Your task to perform on an android device: toggle priority inbox in the gmail app Image 0: 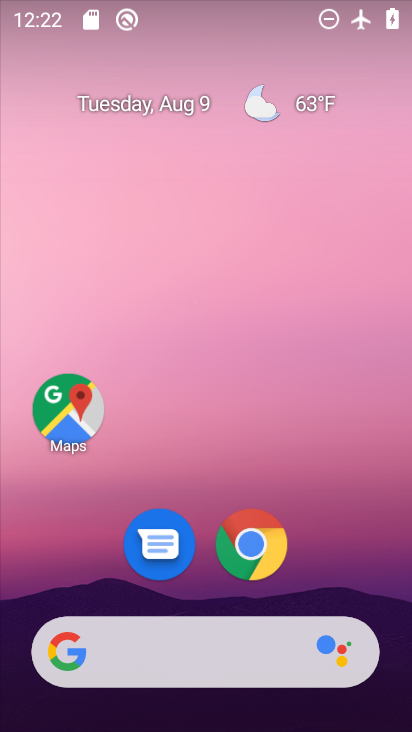
Step 0: drag from (187, 648) to (282, 95)
Your task to perform on an android device: toggle priority inbox in the gmail app Image 1: 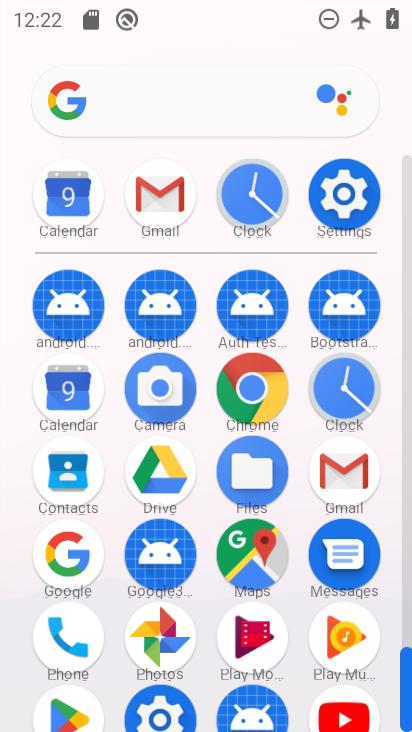
Step 1: click (161, 194)
Your task to perform on an android device: toggle priority inbox in the gmail app Image 2: 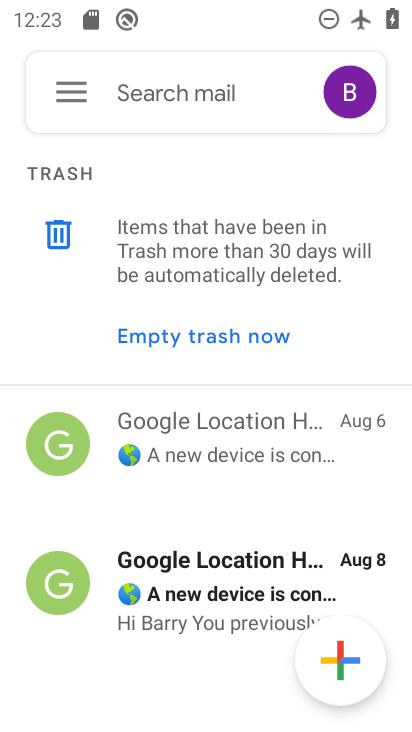
Step 2: click (71, 98)
Your task to perform on an android device: toggle priority inbox in the gmail app Image 3: 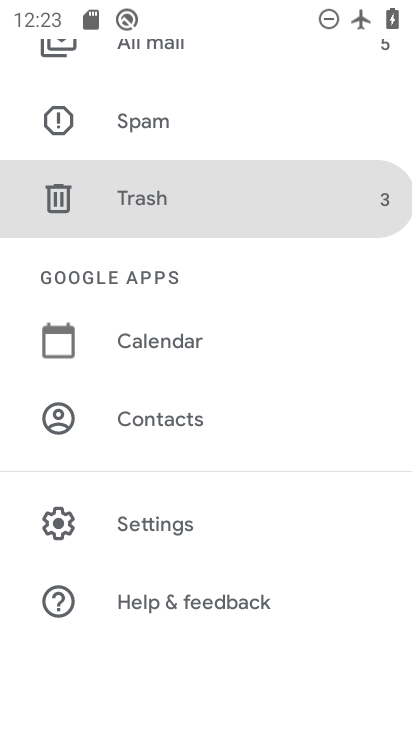
Step 3: click (161, 532)
Your task to perform on an android device: toggle priority inbox in the gmail app Image 4: 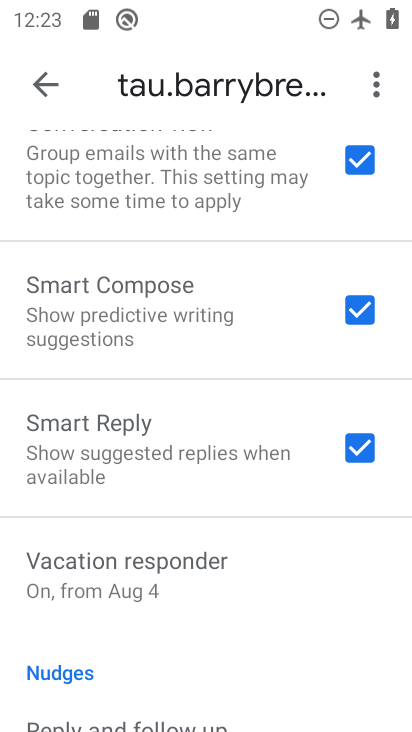
Step 4: drag from (231, 282) to (196, 475)
Your task to perform on an android device: toggle priority inbox in the gmail app Image 5: 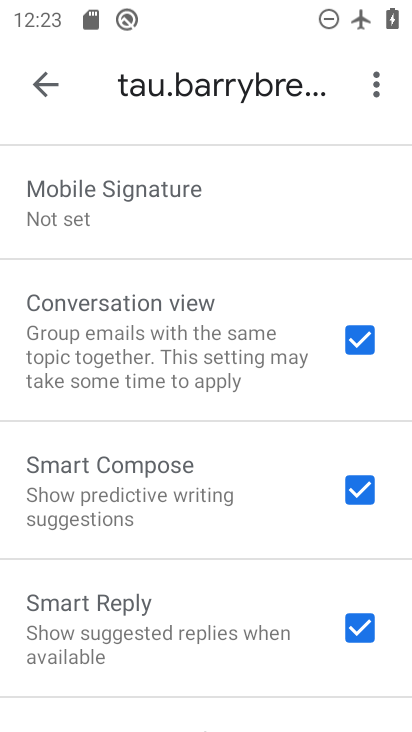
Step 5: drag from (172, 445) to (169, 488)
Your task to perform on an android device: toggle priority inbox in the gmail app Image 6: 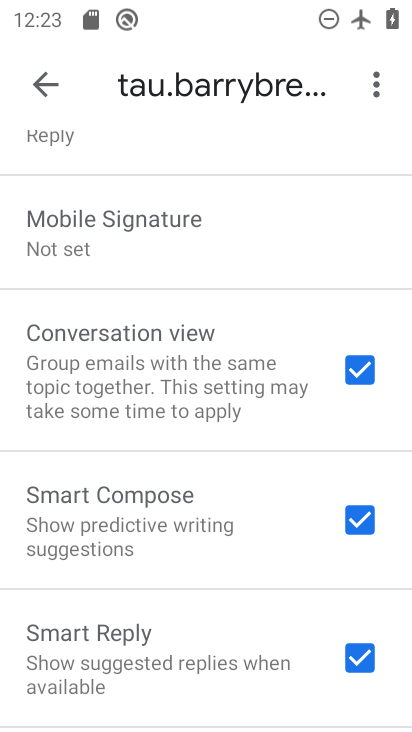
Step 6: drag from (234, 159) to (188, 373)
Your task to perform on an android device: toggle priority inbox in the gmail app Image 7: 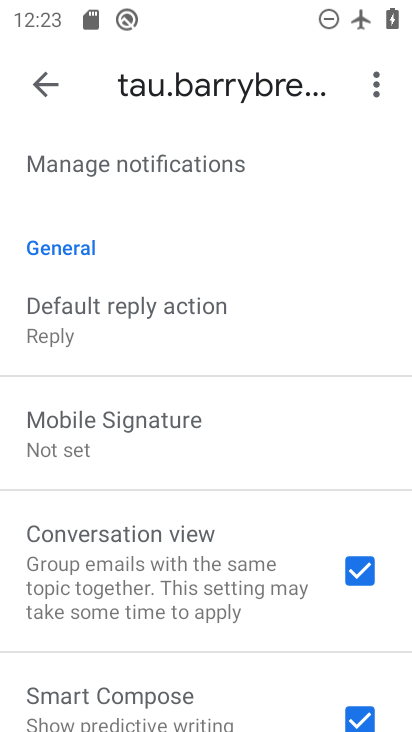
Step 7: drag from (167, 192) to (163, 402)
Your task to perform on an android device: toggle priority inbox in the gmail app Image 8: 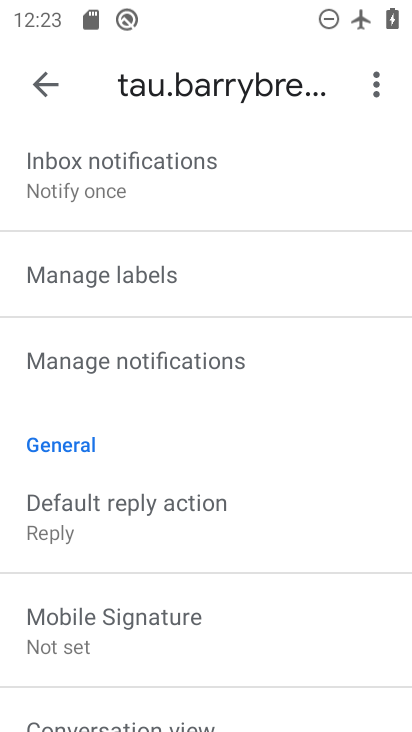
Step 8: drag from (237, 197) to (190, 397)
Your task to perform on an android device: toggle priority inbox in the gmail app Image 9: 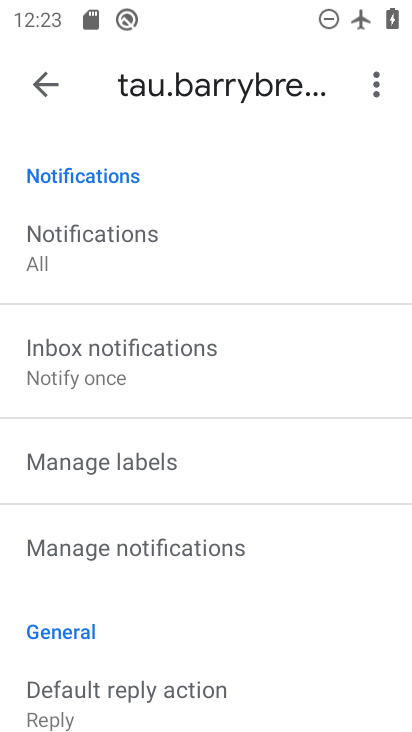
Step 9: drag from (194, 173) to (165, 312)
Your task to perform on an android device: toggle priority inbox in the gmail app Image 10: 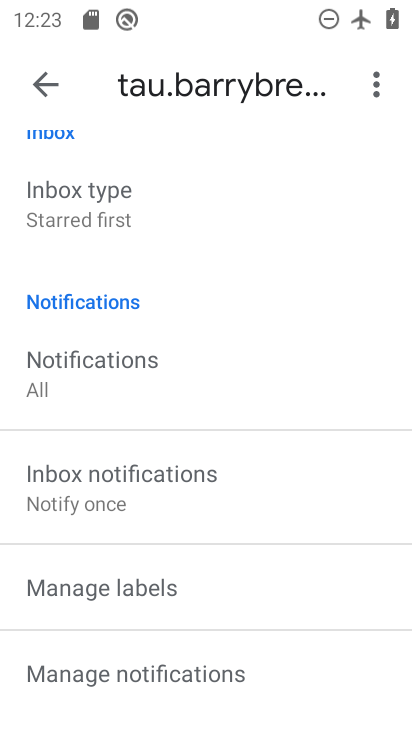
Step 10: drag from (201, 167) to (193, 357)
Your task to perform on an android device: toggle priority inbox in the gmail app Image 11: 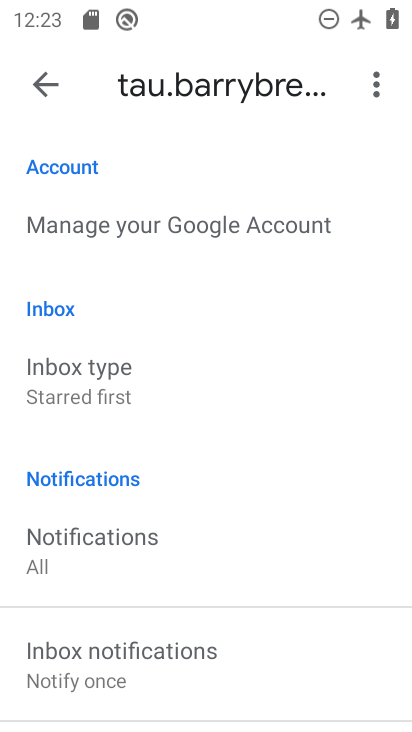
Step 11: click (118, 379)
Your task to perform on an android device: toggle priority inbox in the gmail app Image 12: 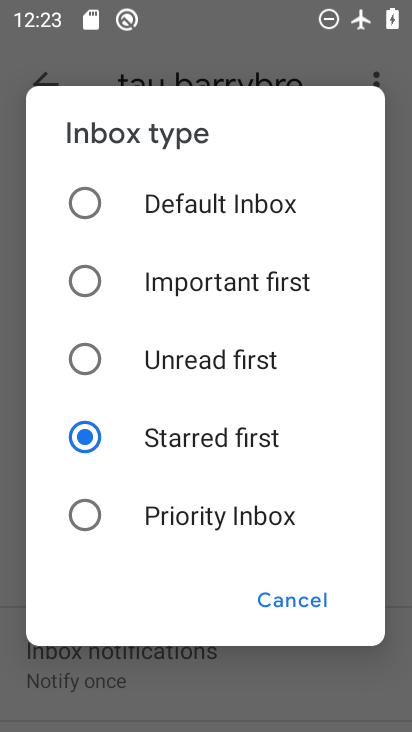
Step 12: click (83, 518)
Your task to perform on an android device: toggle priority inbox in the gmail app Image 13: 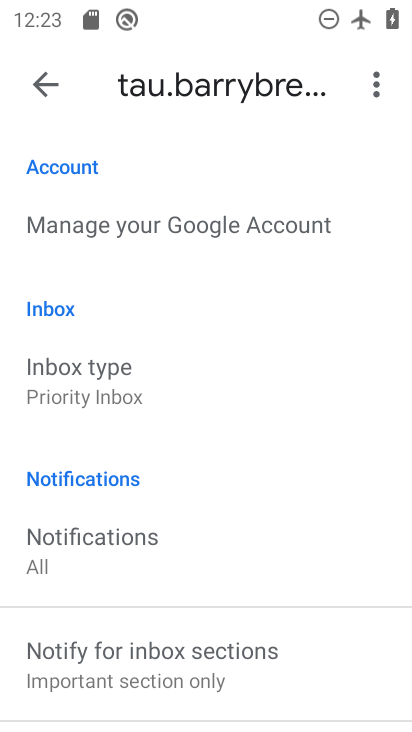
Step 13: task complete